Your task to perform on an android device: turn off translation in the chrome app Image 0: 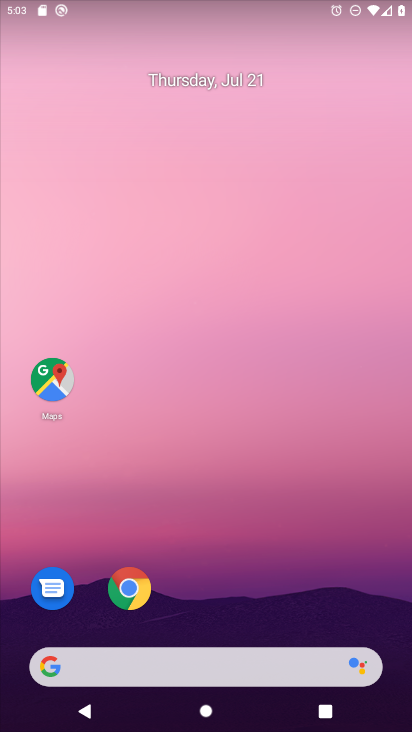
Step 0: click (147, 591)
Your task to perform on an android device: turn off translation in the chrome app Image 1: 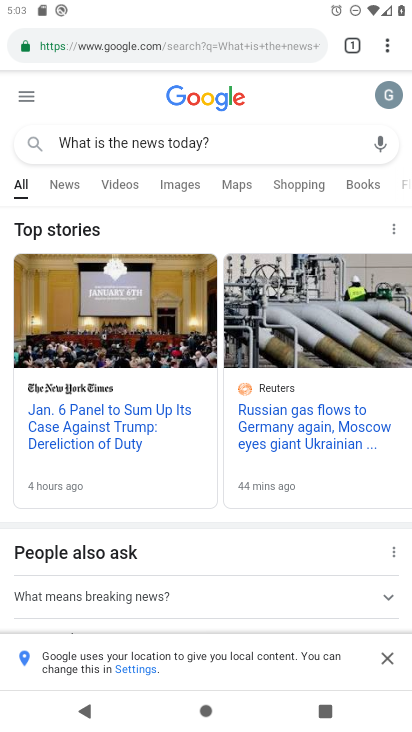
Step 1: click (387, 44)
Your task to perform on an android device: turn off translation in the chrome app Image 2: 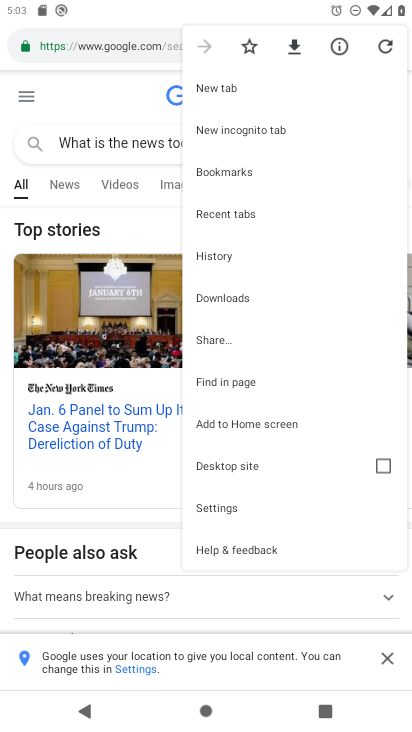
Step 2: click (252, 513)
Your task to perform on an android device: turn off translation in the chrome app Image 3: 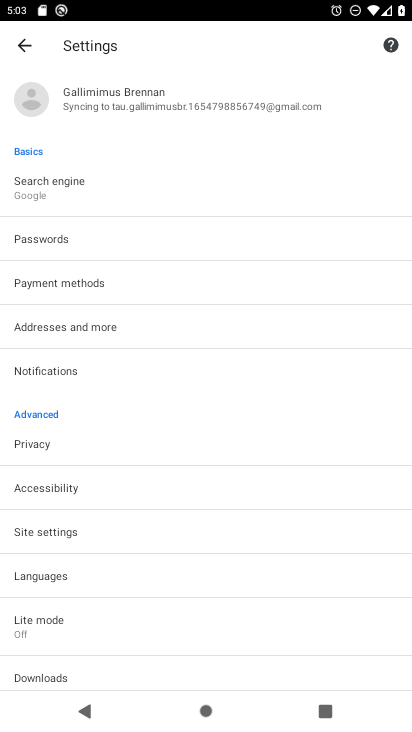
Step 3: click (191, 574)
Your task to perform on an android device: turn off translation in the chrome app Image 4: 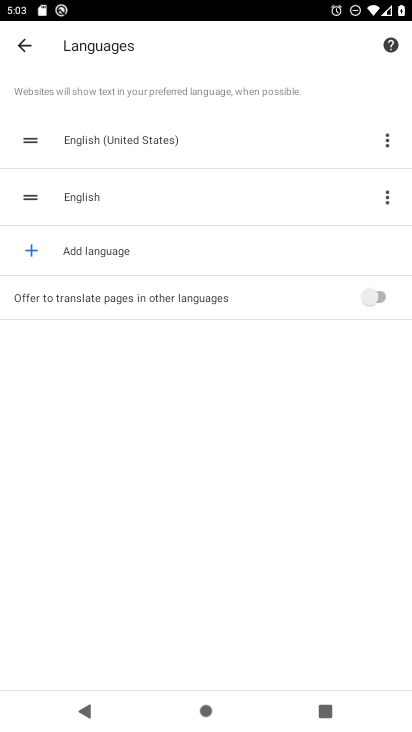
Step 4: task complete